Your task to perform on an android device: Go to settings Image 0: 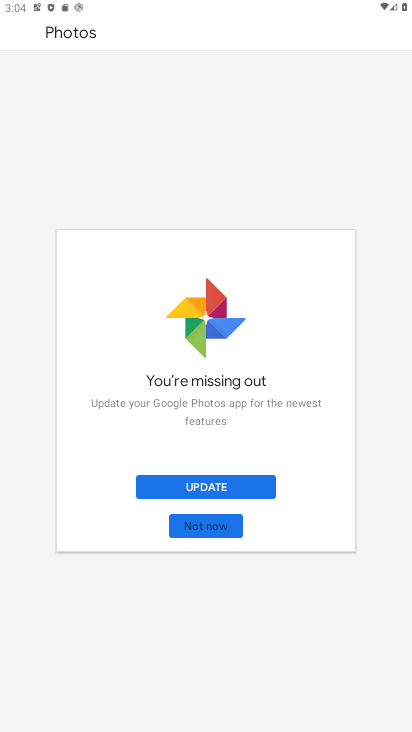
Step 0: press home button
Your task to perform on an android device: Go to settings Image 1: 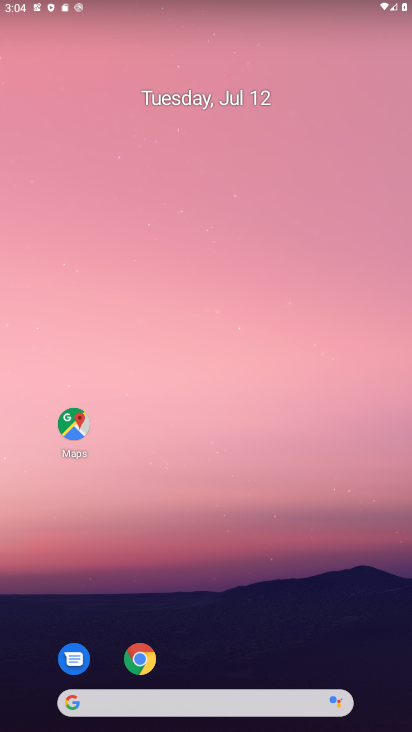
Step 1: drag from (216, 716) to (210, 174)
Your task to perform on an android device: Go to settings Image 2: 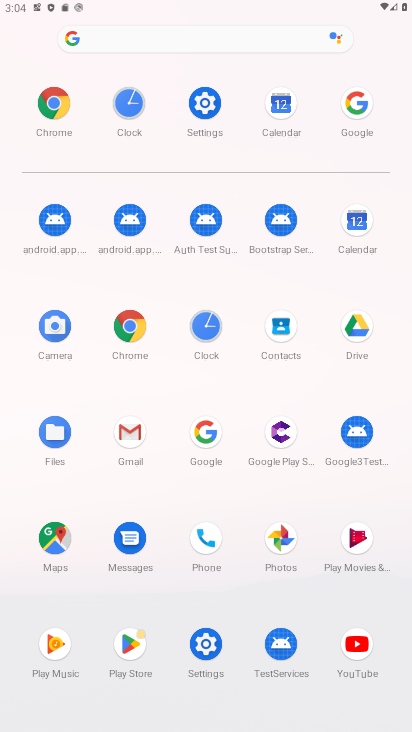
Step 2: click (206, 99)
Your task to perform on an android device: Go to settings Image 3: 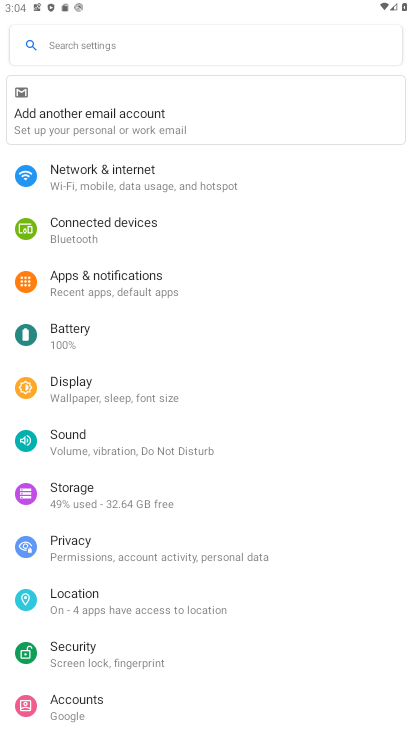
Step 3: task complete